Your task to perform on an android device: all mails in gmail Image 0: 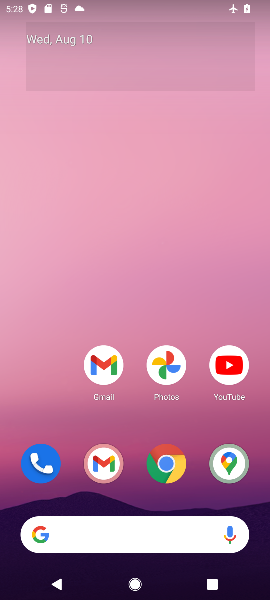
Step 0: click (99, 364)
Your task to perform on an android device: all mails in gmail Image 1: 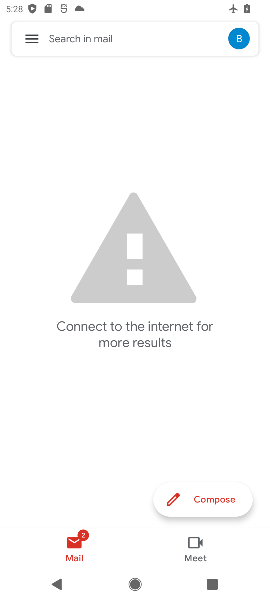
Step 1: click (32, 39)
Your task to perform on an android device: all mails in gmail Image 2: 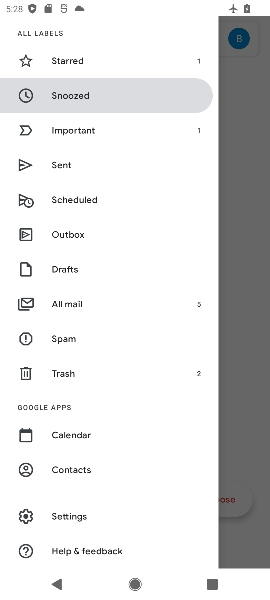
Step 2: click (57, 304)
Your task to perform on an android device: all mails in gmail Image 3: 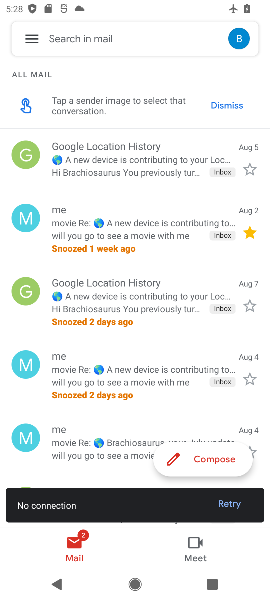
Step 3: task complete